Your task to perform on an android device: change your default location settings in chrome Image 0: 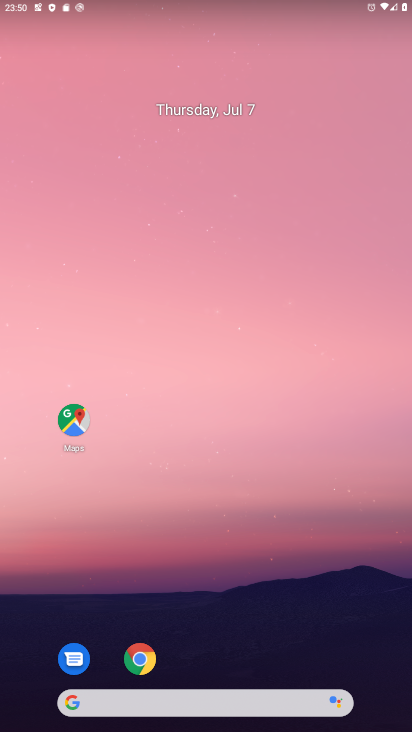
Step 0: click (145, 653)
Your task to perform on an android device: change your default location settings in chrome Image 1: 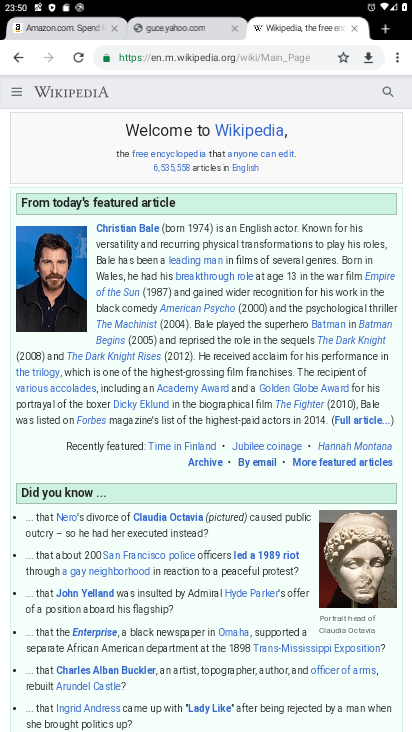
Step 1: click (403, 52)
Your task to perform on an android device: change your default location settings in chrome Image 2: 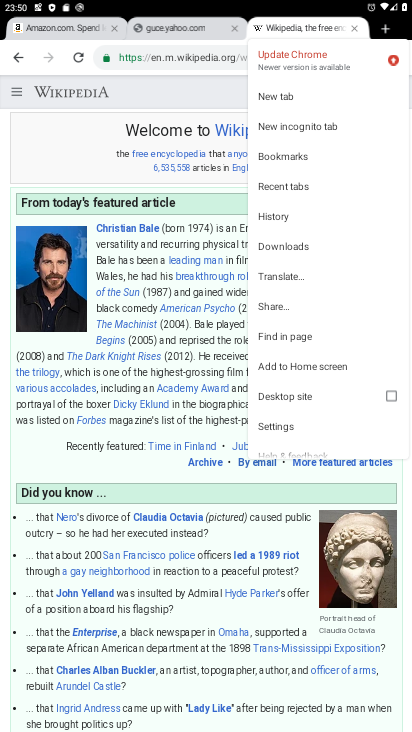
Step 2: click (275, 441)
Your task to perform on an android device: change your default location settings in chrome Image 3: 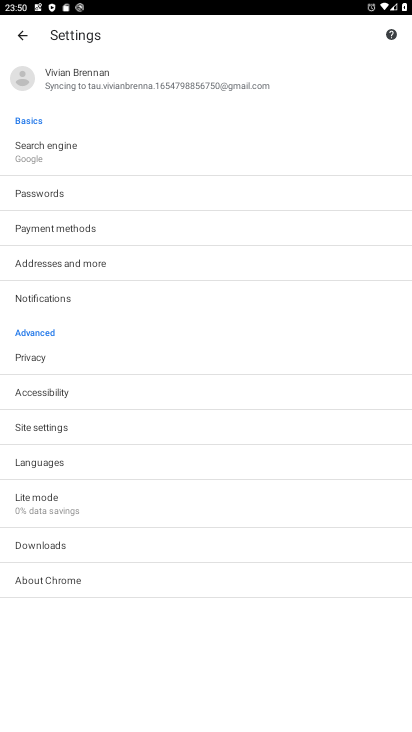
Step 3: click (21, 44)
Your task to perform on an android device: change your default location settings in chrome Image 4: 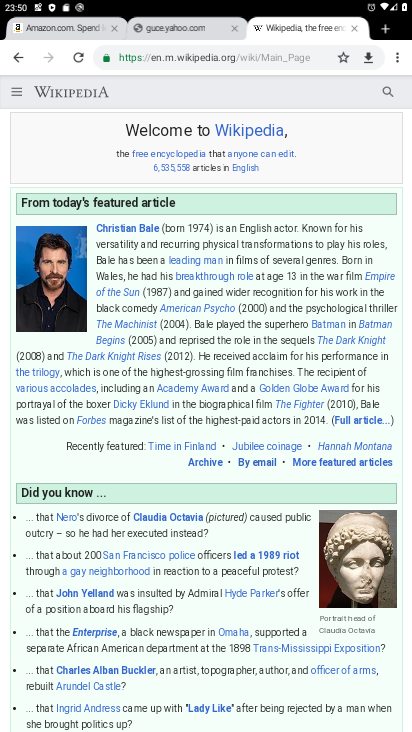
Step 4: click (397, 62)
Your task to perform on an android device: change your default location settings in chrome Image 5: 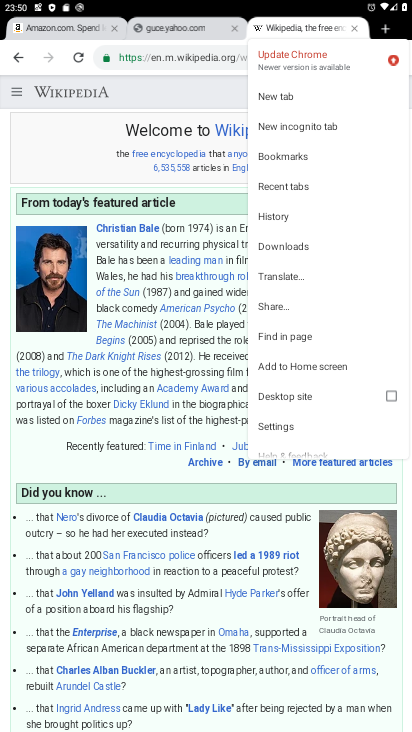
Step 5: drag from (281, 446) to (313, 125)
Your task to perform on an android device: change your default location settings in chrome Image 6: 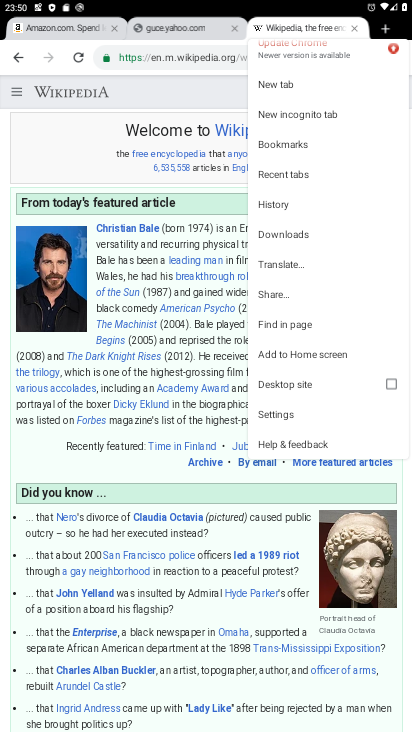
Step 6: click (289, 423)
Your task to perform on an android device: change your default location settings in chrome Image 7: 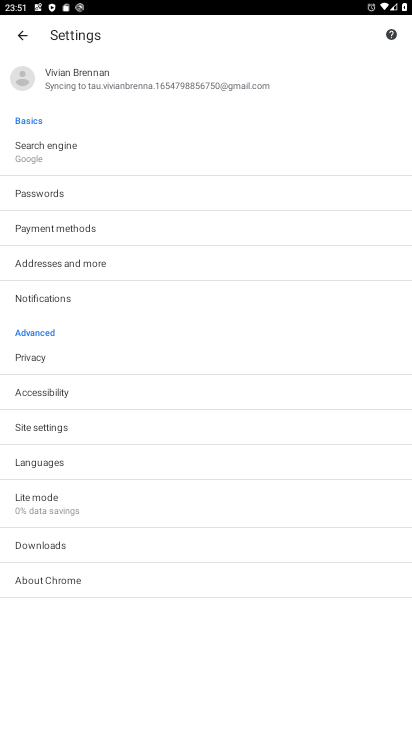
Step 7: click (80, 436)
Your task to perform on an android device: change your default location settings in chrome Image 8: 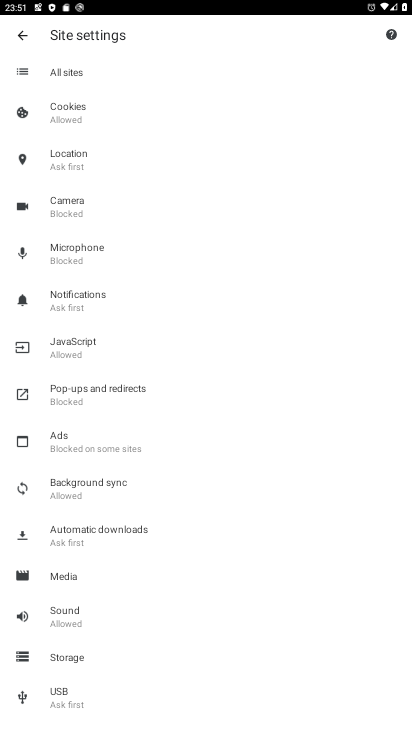
Step 8: click (66, 169)
Your task to perform on an android device: change your default location settings in chrome Image 9: 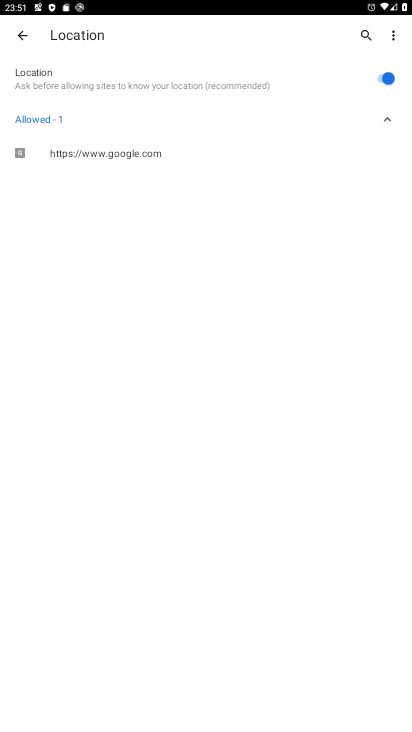
Step 9: click (387, 72)
Your task to perform on an android device: change your default location settings in chrome Image 10: 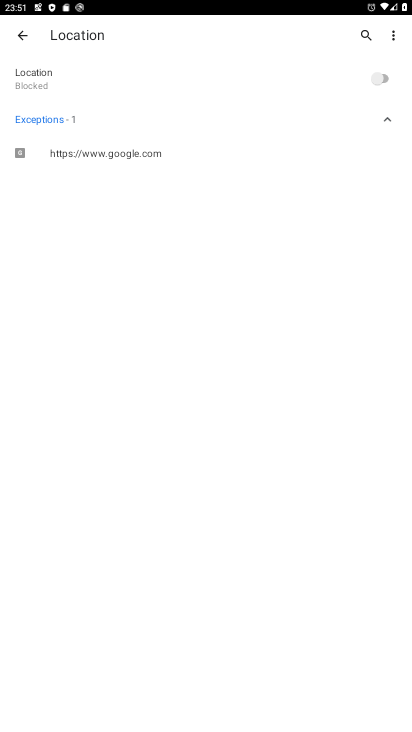
Step 10: task complete